Your task to perform on an android device: visit the assistant section in the google photos Image 0: 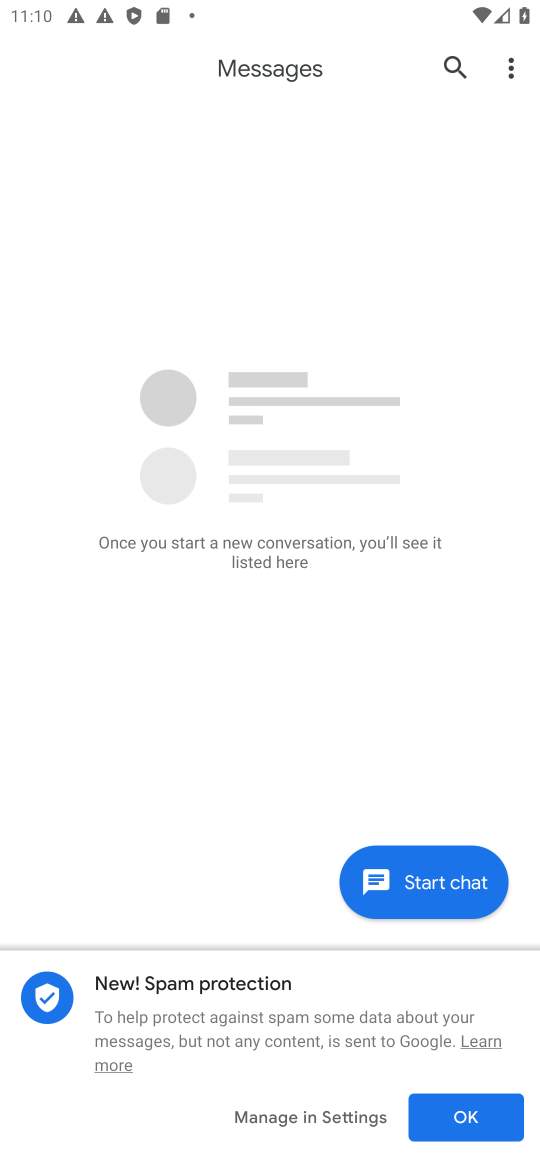
Step 0: press home button
Your task to perform on an android device: visit the assistant section in the google photos Image 1: 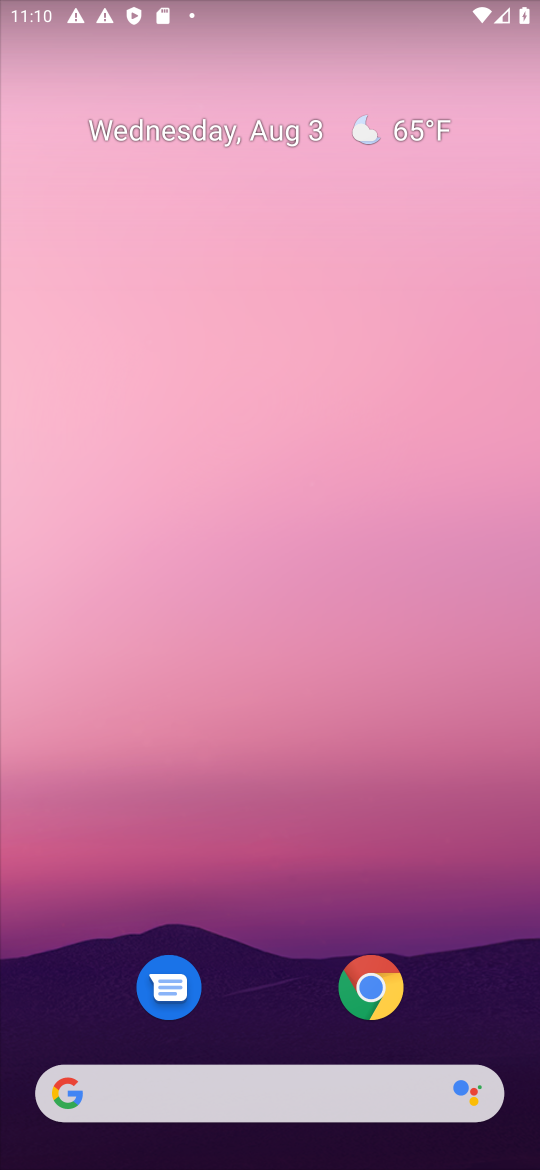
Step 1: drag from (252, 925) to (256, 483)
Your task to perform on an android device: visit the assistant section in the google photos Image 2: 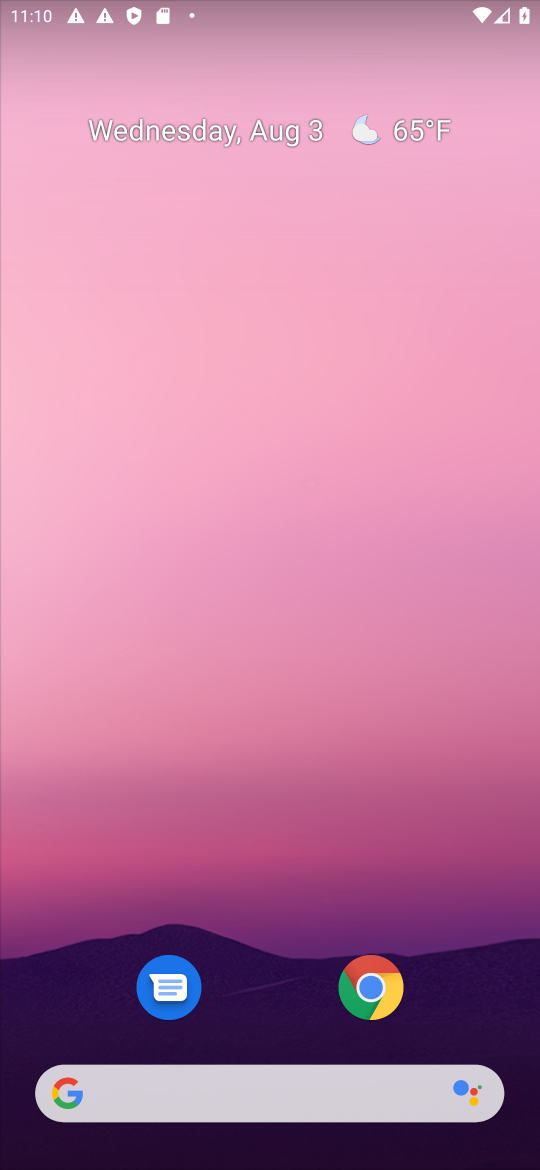
Step 2: drag from (297, 982) to (297, 519)
Your task to perform on an android device: visit the assistant section in the google photos Image 3: 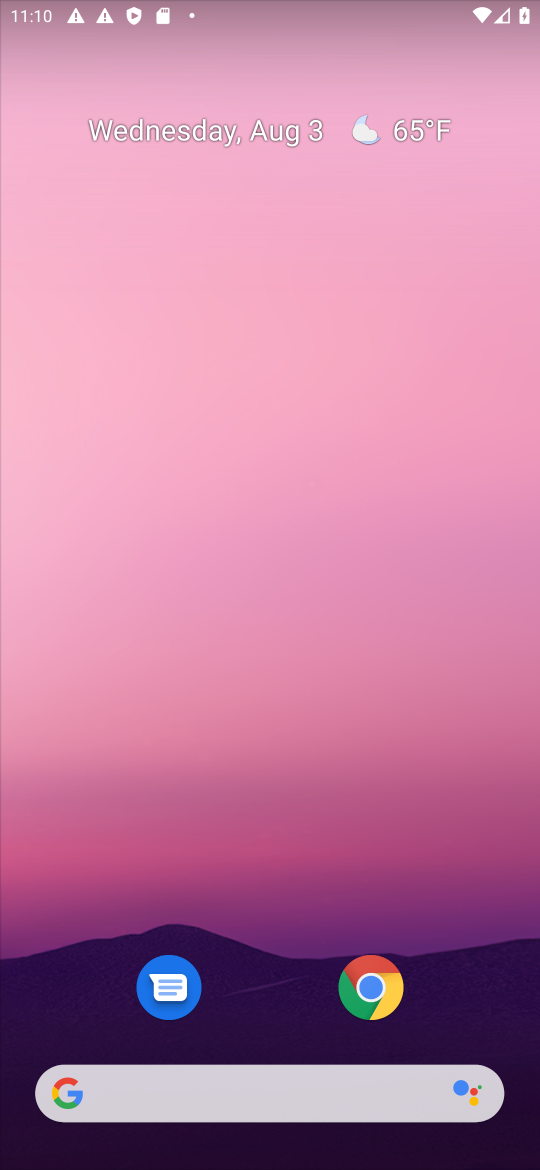
Step 3: drag from (249, 1062) to (213, 490)
Your task to perform on an android device: visit the assistant section in the google photos Image 4: 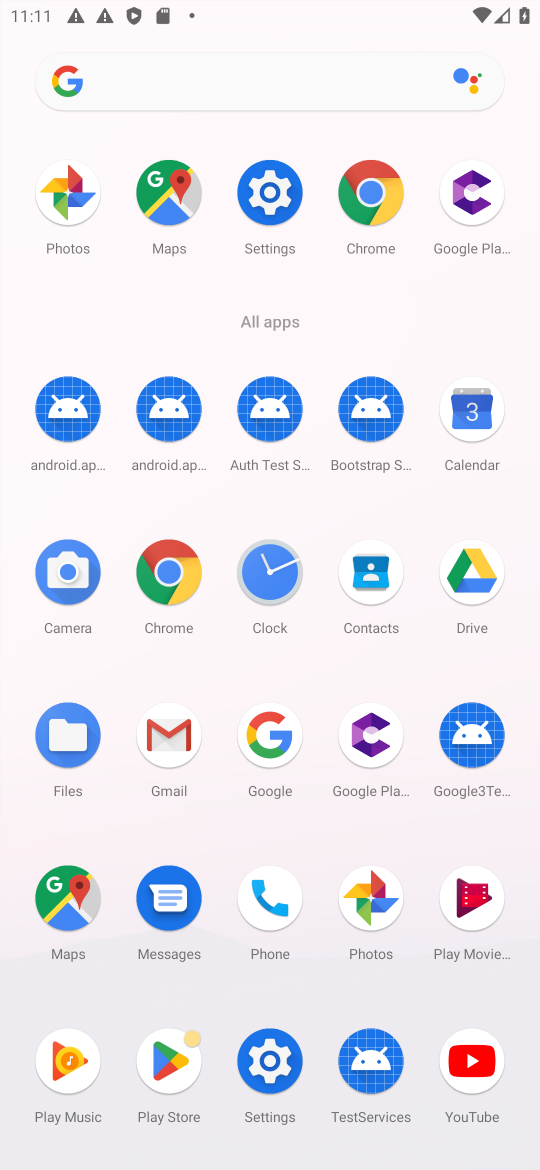
Step 4: click (374, 928)
Your task to perform on an android device: visit the assistant section in the google photos Image 5: 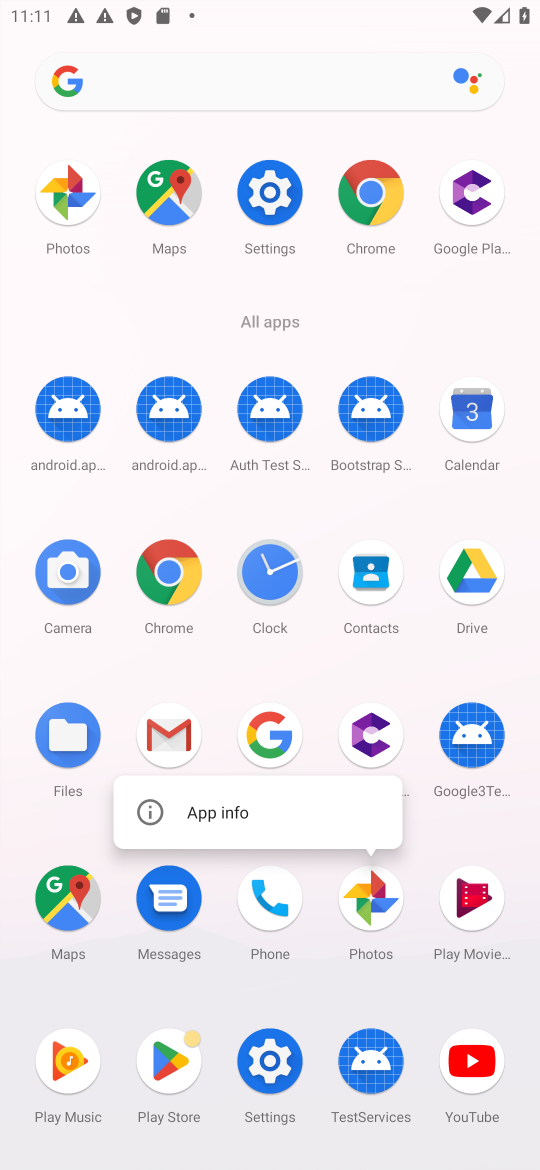
Step 5: click (382, 894)
Your task to perform on an android device: visit the assistant section in the google photos Image 6: 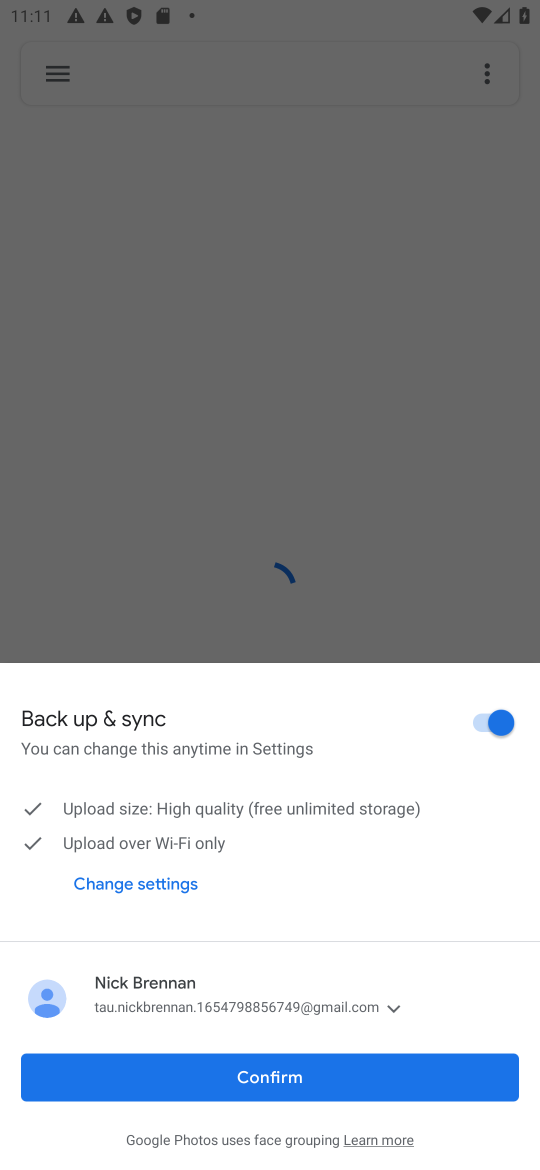
Step 6: click (315, 1084)
Your task to perform on an android device: visit the assistant section in the google photos Image 7: 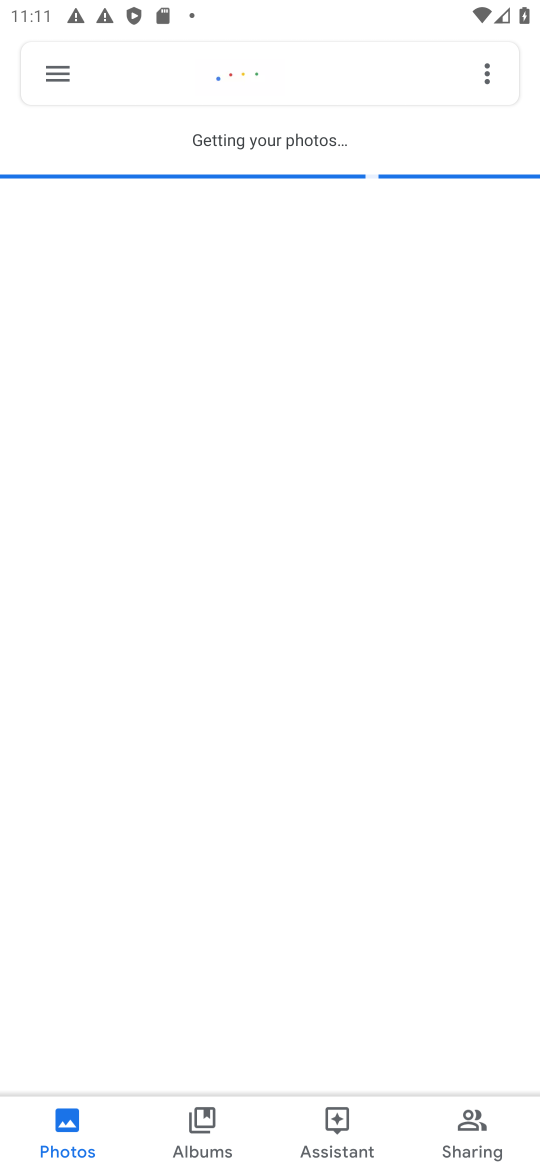
Step 7: click (321, 1131)
Your task to perform on an android device: visit the assistant section in the google photos Image 8: 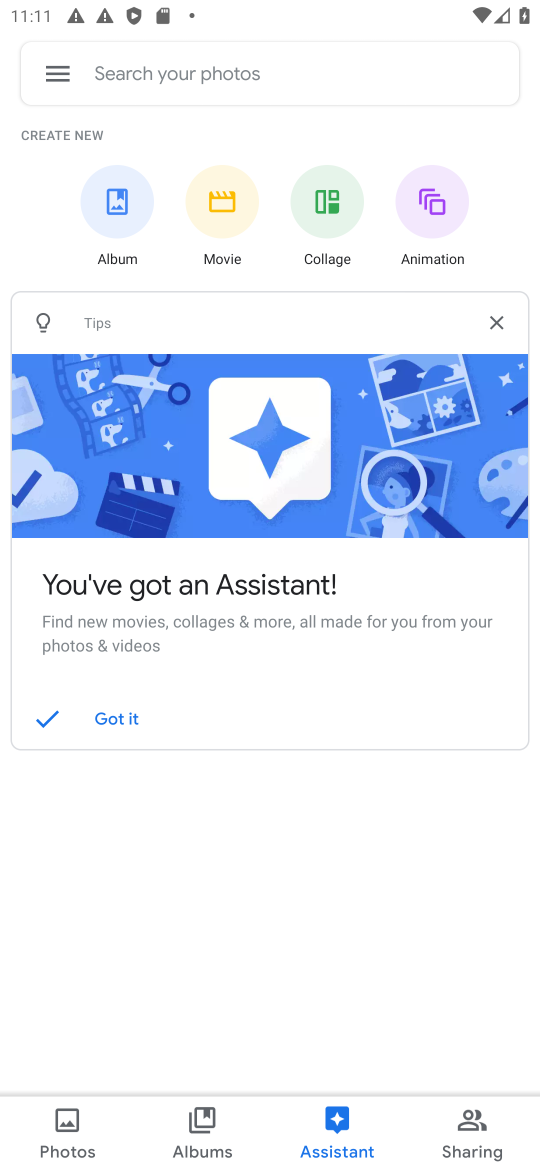
Step 8: task complete